Your task to perform on an android device: Go to Google Image 0: 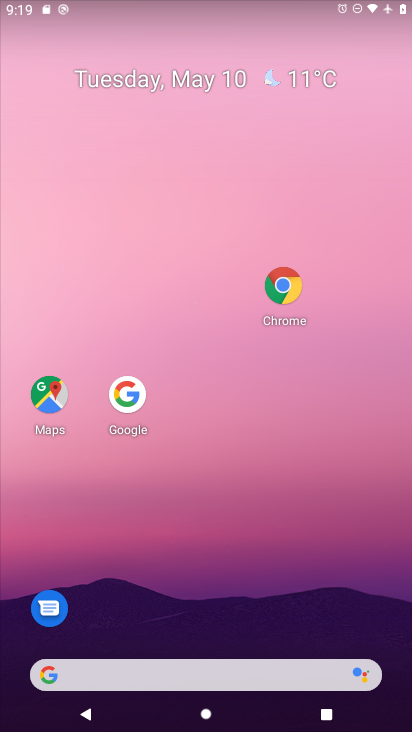
Step 0: click (131, 397)
Your task to perform on an android device: Go to Google Image 1: 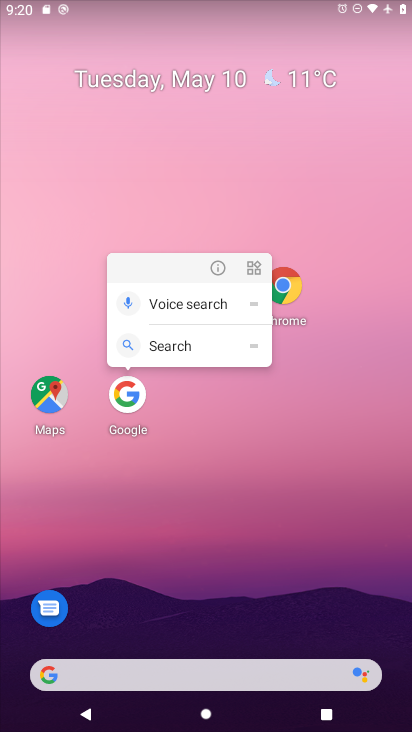
Step 1: click (126, 397)
Your task to perform on an android device: Go to Google Image 2: 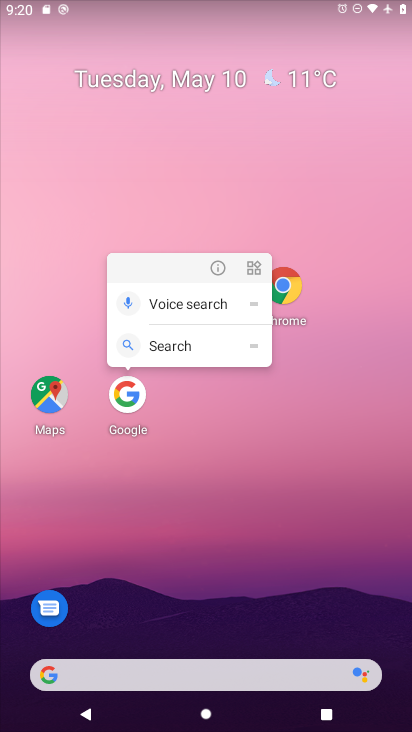
Step 2: click (126, 397)
Your task to perform on an android device: Go to Google Image 3: 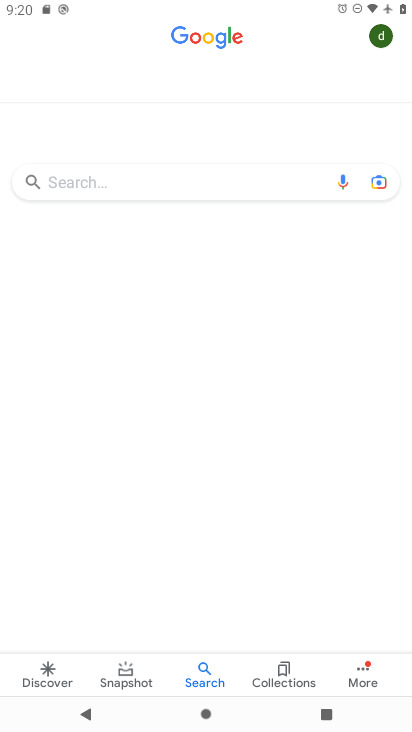
Step 3: task complete